Your task to perform on an android device: Go to battery settings Image 0: 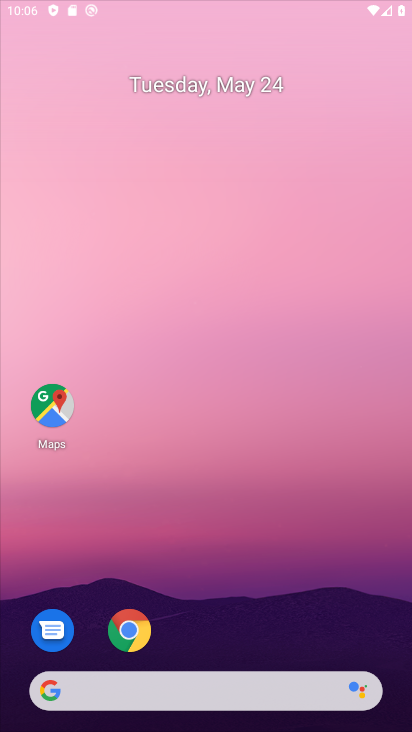
Step 0: press home button
Your task to perform on an android device: Go to battery settings Image 1: 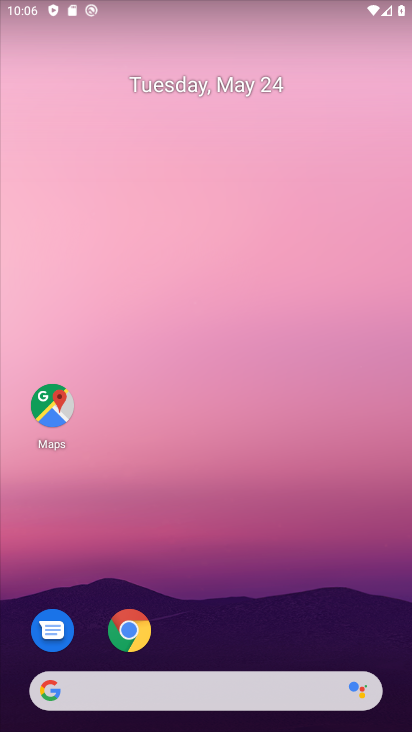
Step 1: press home button
Your task to perform on an android device: Go to battery settings Image 2: 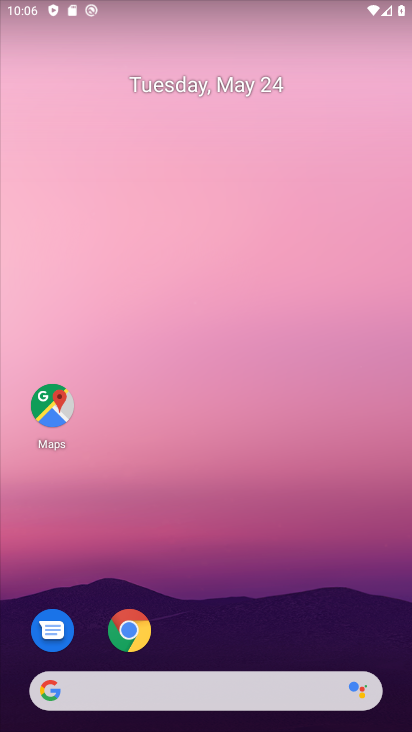
Step 2: drag from (211, 656) to (271, 96)
Your task to perform on an android device: Go to battery settings Image 3: 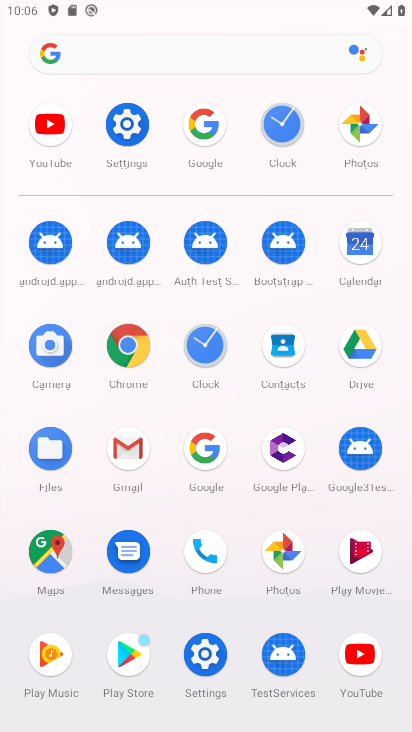
Step 3: click (127, 116)
Your task to perform on an android device: Go to battery settings Image 4: 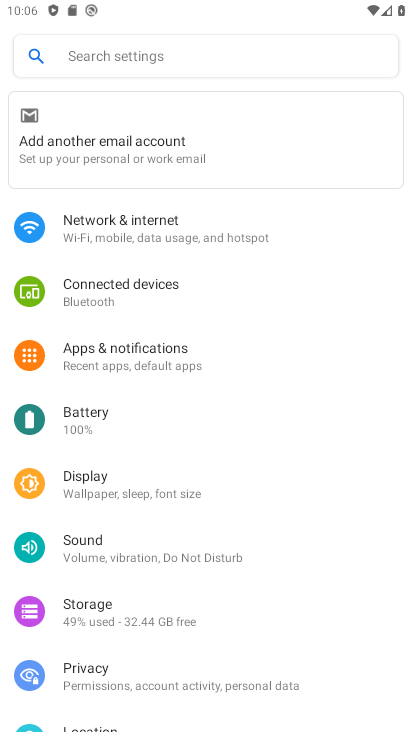
Step 4: click (114, 416)
Your task to perform on an android device: Go to battery settings Image 5: 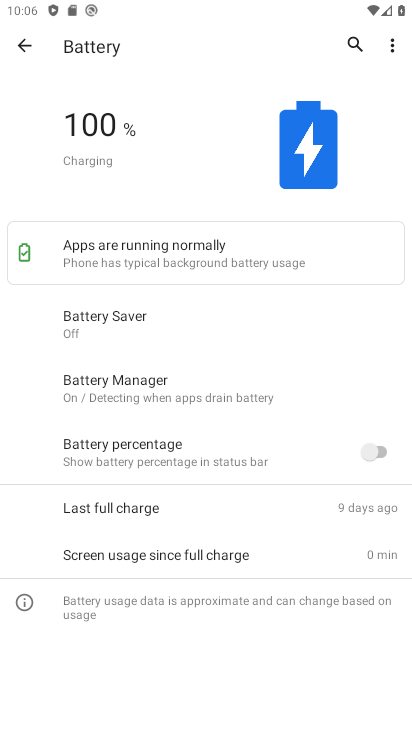
Step 5: task complete